Your task to perform on an android device: Open ESPN.com Image 0: 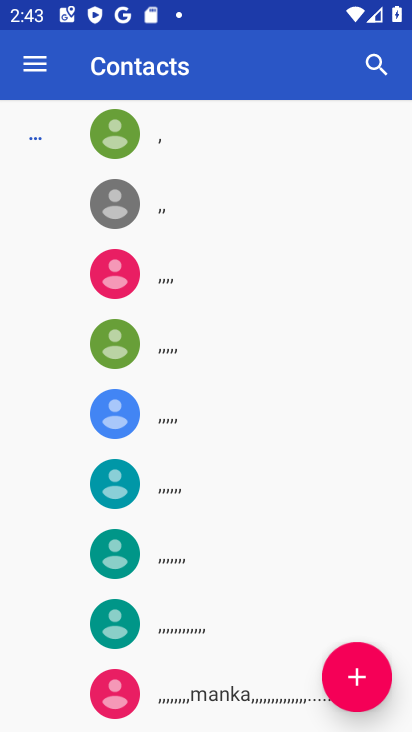
Step 0: press back button
Your task to perform on an android device: Open ESPN.com Image 1: 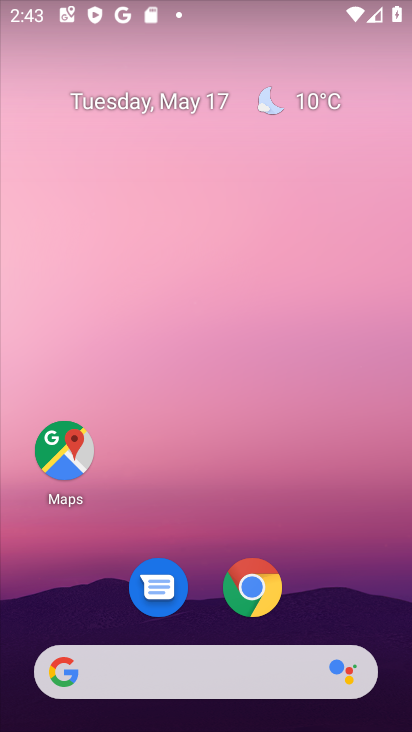
Step 1: drag from (310, 558) to (272, 22)
Your task to perform on an android device: Open ESPN.com Image 2: 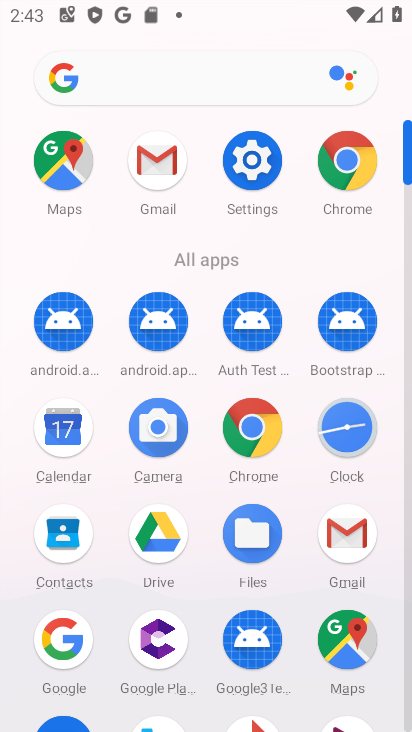
Step 2: click (257, 427)
Your task to perform on an android device: Open ESPN.com Image 3: 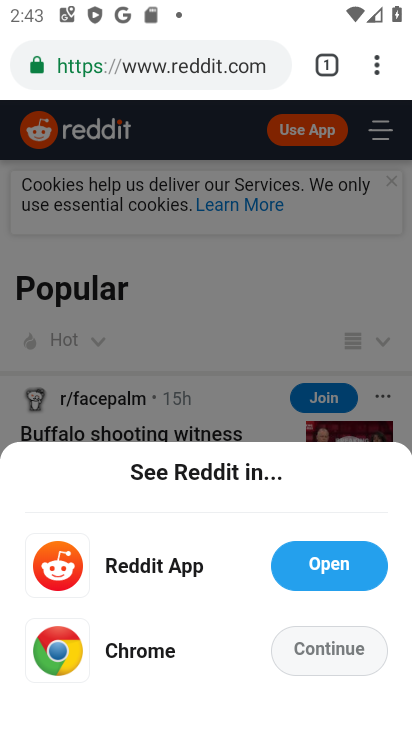
Step 3: click (221, 61)
Your task to perform on an android device: Open ESPN.com Image 4: 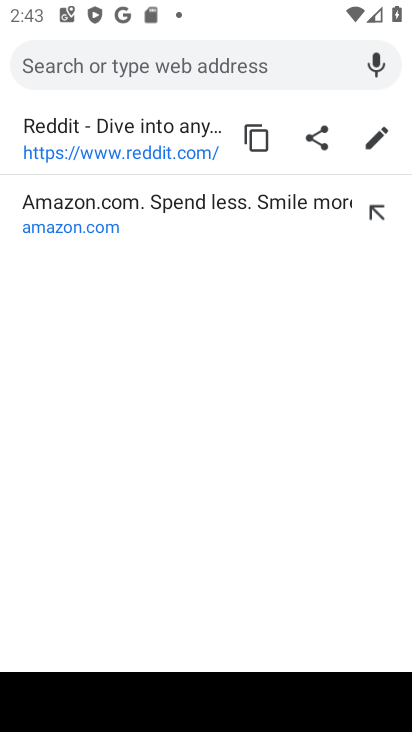
Step 4: type "ESPN.com"
Your task to perform on an android device: Open ESPN.com Image 5: 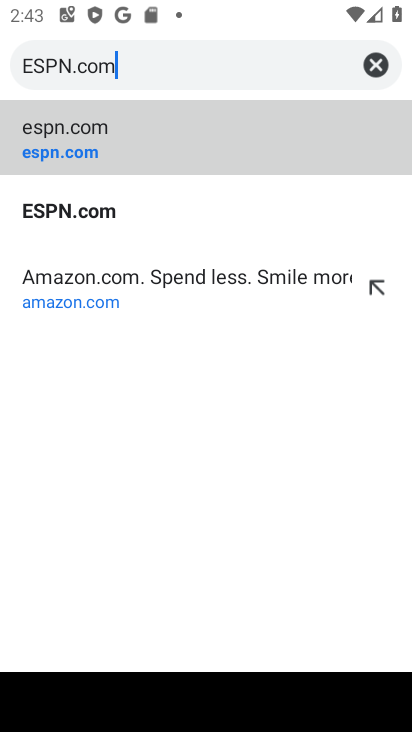
Step 5: type ""
Your task to perform on an android device: Open ESPN.com Image 6: 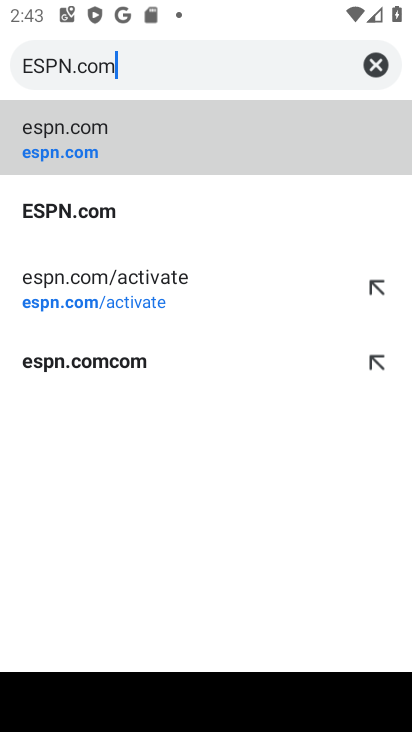
Step 6: click (119, 113)
Your task to perform on an android device: Open ESPN.com Image 7: 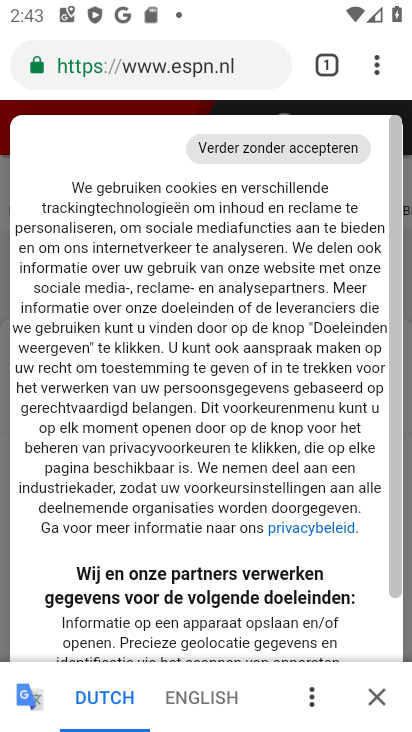
Step 7: drag from (236, 542) to (270, 183)
Your task to perform on an android device: Open ESPN.com Image 8: 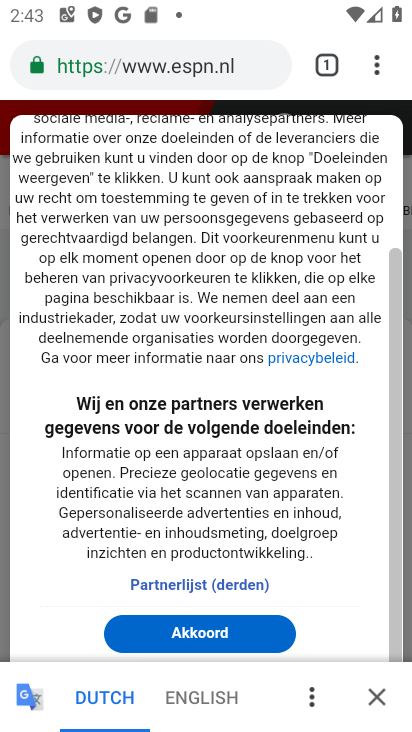
Step 8: click (198, 639)
Your task to perform on an android device: Open ESPN.com Image 9: 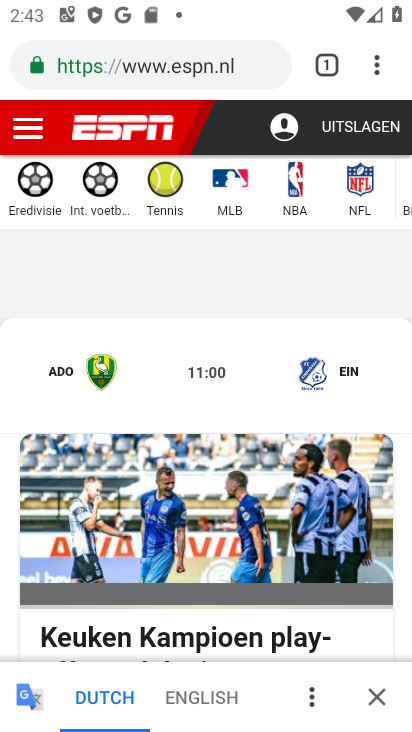
Step 9: task complete